Your task to perform on an android device: see sites visited before in the chrome app Image 0: 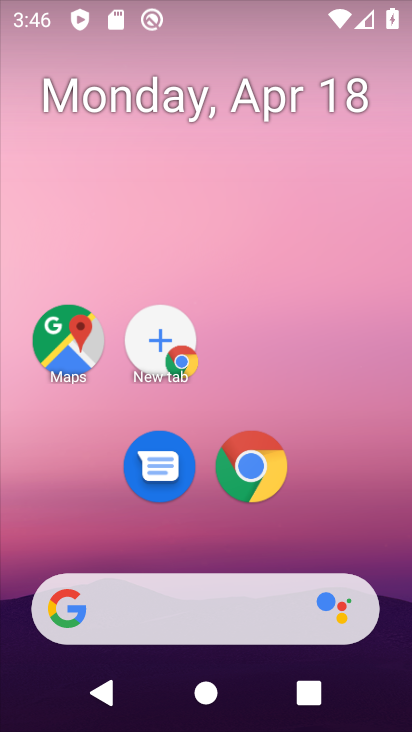
Step 0: drag from (363, 547) to (303, 25)
Your task to perform on an android device: see sites visited before in the chrome app Image 1: 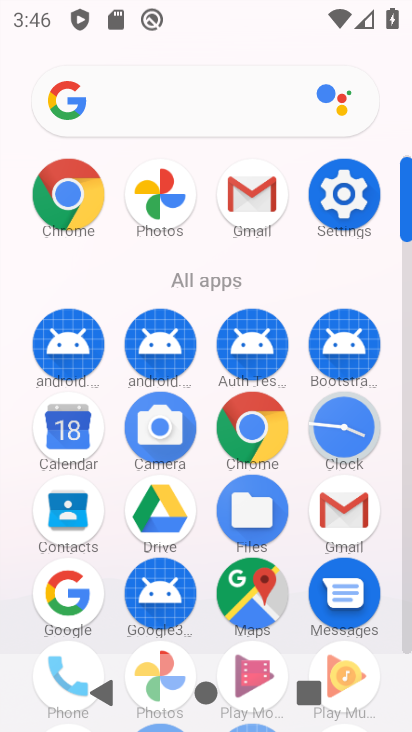
Step 1: drag from (3, 566) to (5, 335)
Your task to perform on an android device: see sites visited before in the chrome app Image 2: 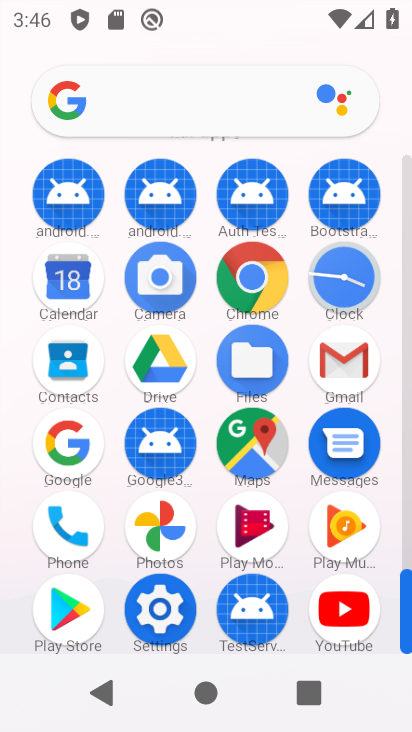
Step 2: click (250, 269)
Your task to perform on an android device: see sites visited before in the chrome app Image 3: 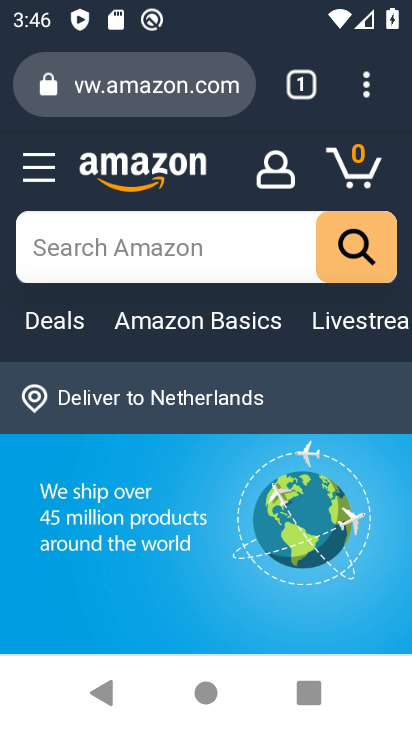
Step 3: click (363, 92)
Your task to perform on an android device: see sites visited before in the chrome app Image 4: 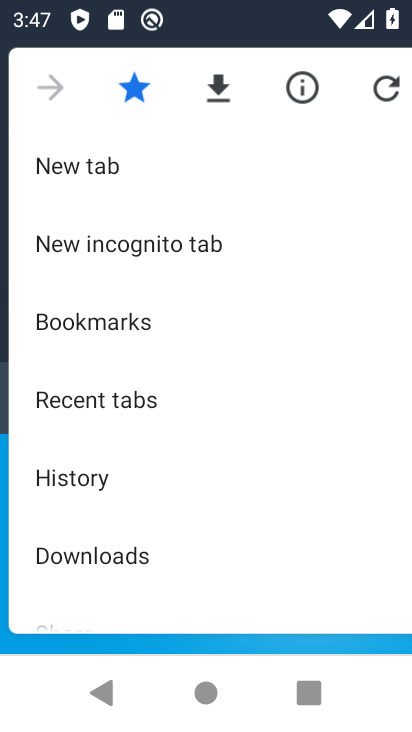
Step 4: drag from (211, 467) to (201, 173)
Your task to perform on an android device: see sites visited before in the chrome app Image 5: 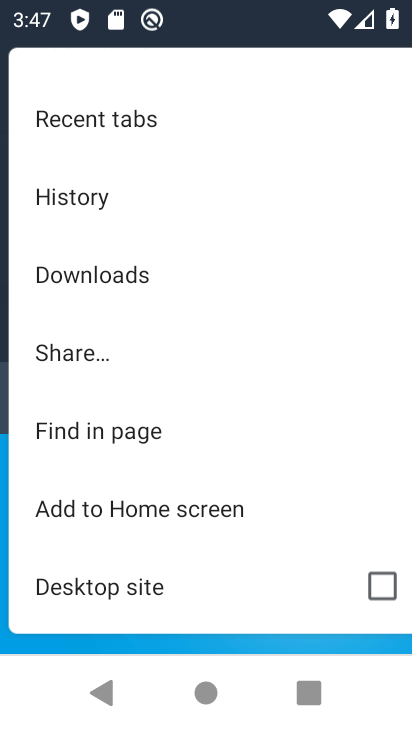
Step 5: drag from (182, 514) to (208, 226)
Your task to perform on an android device: see sites visited before in the chrome app Image 6: 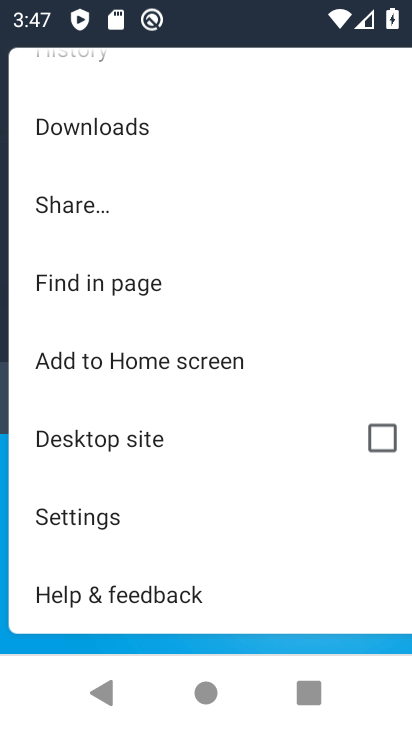
Step 6: drag from (203, 192) to (212, 466)
Your task to perform on an android device: see sites visited before in the chrome app Image 7: 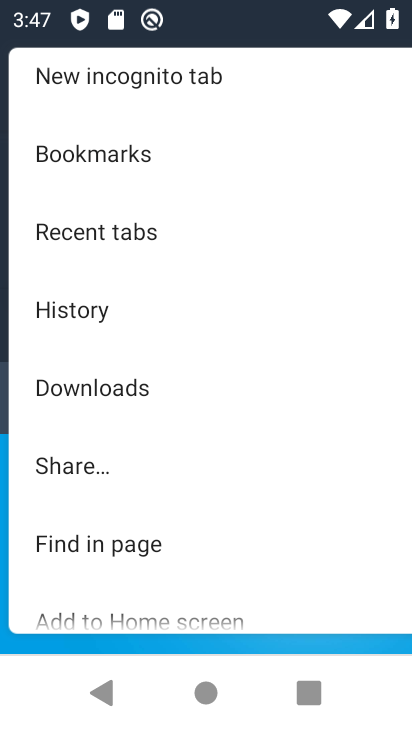
Step 7: click (118, 314)
Your task to perform on an android device: see sites visited before in the chrome app Image 8: 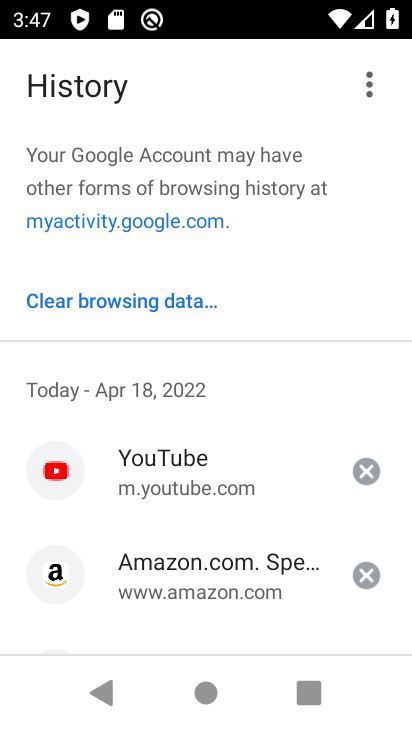
Step 8: task complete